Your task to perform on an android device: turn off notifications settings in the gmail app Image 0: 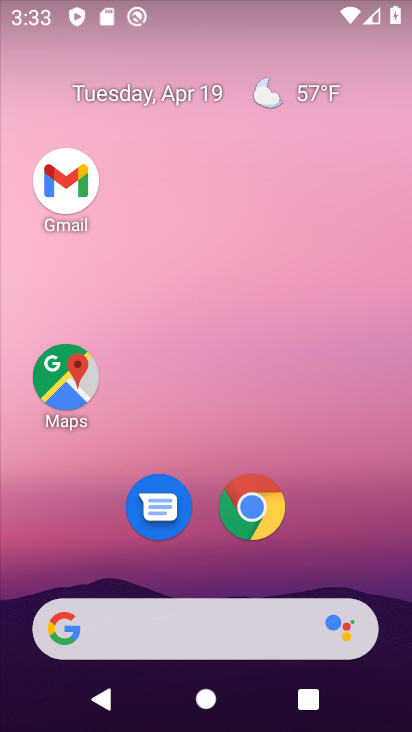
Step 0: drag from (224, 589) to (273, 163)
Your task to perform on an android device: turn off notifications settings in the gmail app Image 1: 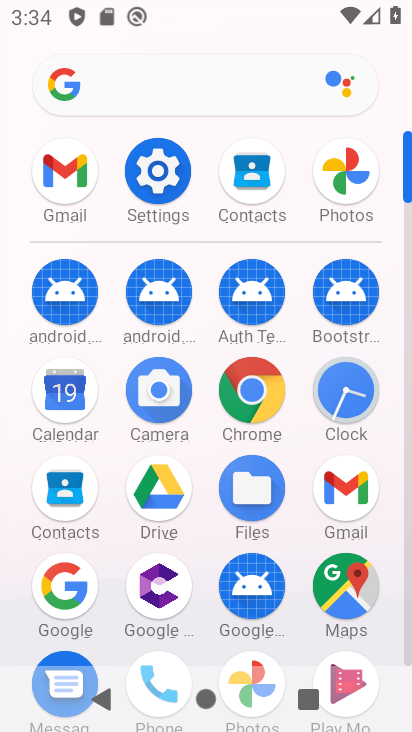
Step 1: click (339, 480)
Your task to perform on an android device: turn off notifications settings in the gmail app Image 2: 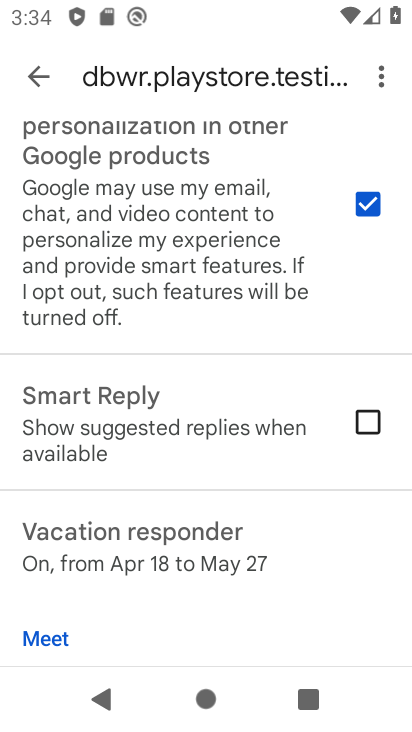
Step 2: drag from (265, 152) to (203, 640)
Your task to perform on an android device: turn off notifications settings in the gmail app Image 3: 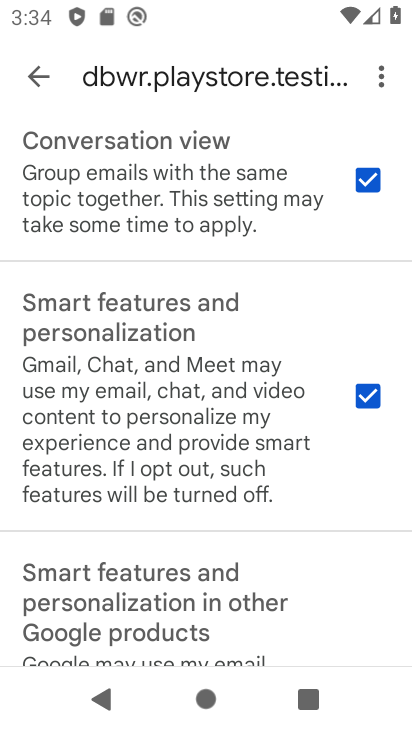
Step 3: drag from (263, 144) to (181, 512)
Your task to perform on an android device: turn off notifications settings in the gmail app Image 4: 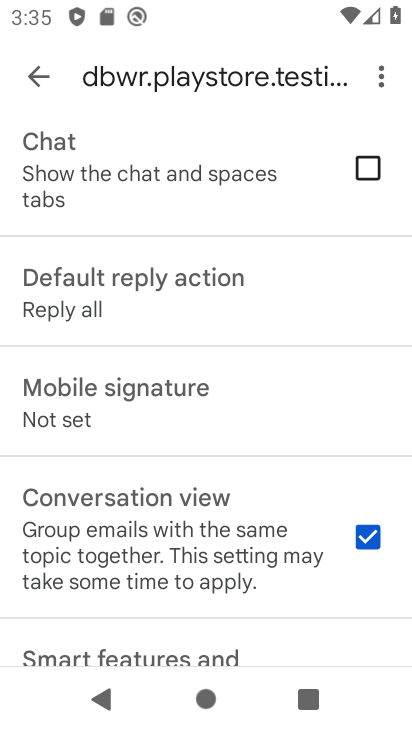
Step 4: drag from (203, 129) to (115, 561)
Your task to perform on an android device: turn off notifications settings in the gmail app Image 5: 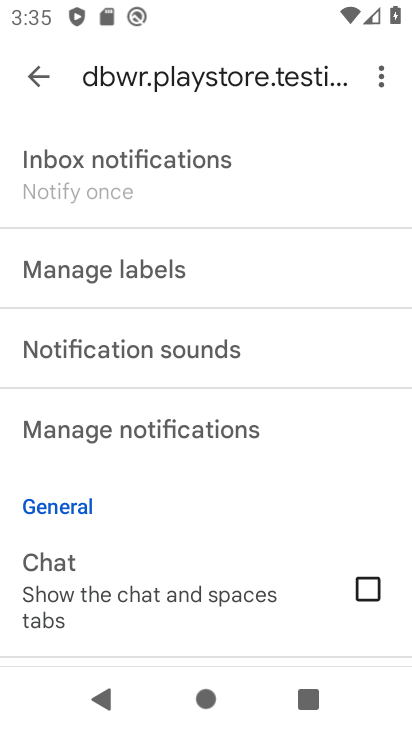
Step 5: click (178, 439)
Your task to perform on an android device: turn off notifications settings in the gmail app Image 6: 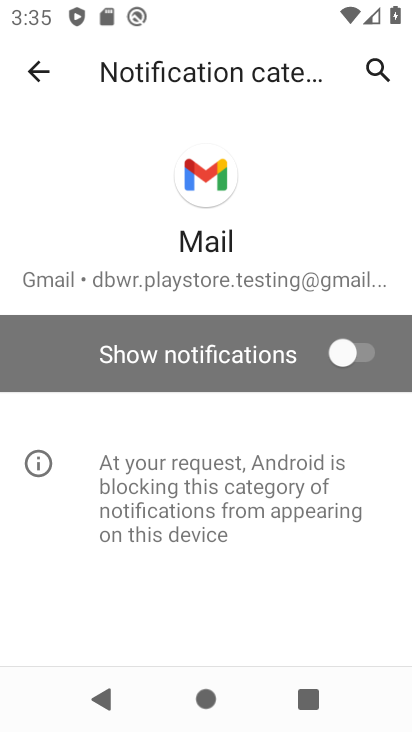
Step 6: task complete